Your task to perform on an android device: Go to CNN.com Image 0: 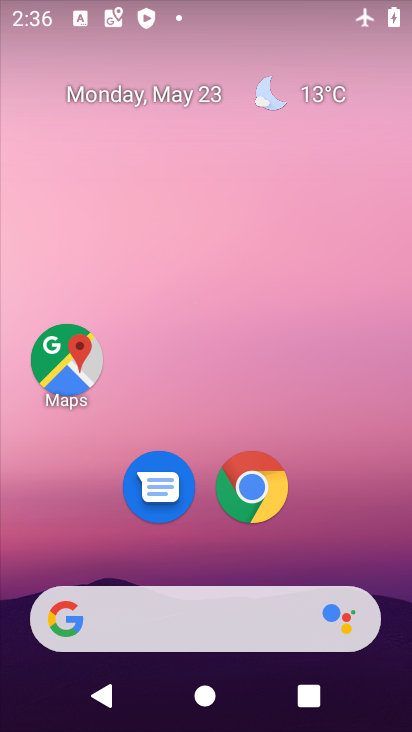
Step 0: click (256, 493)
Your task to perform on an android device: Go to CNN.com Image 1: 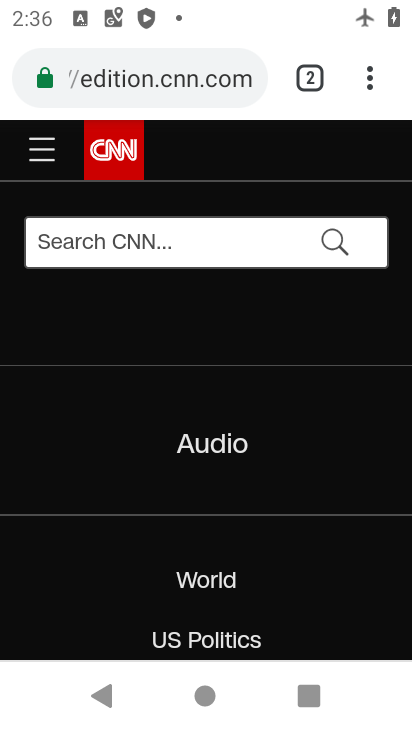
Step 1: task complete